Your task to perform on an android device: Open settings on Google Maps Image 0: 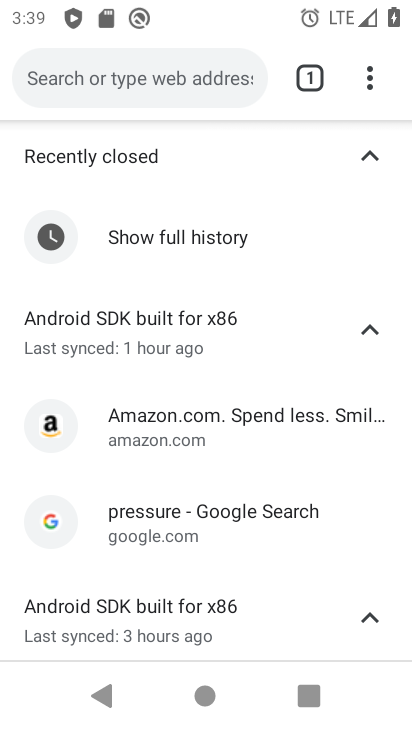
Step 0: press home button
Your task to perform on an android device: Open settings on Google Maps Image 1: 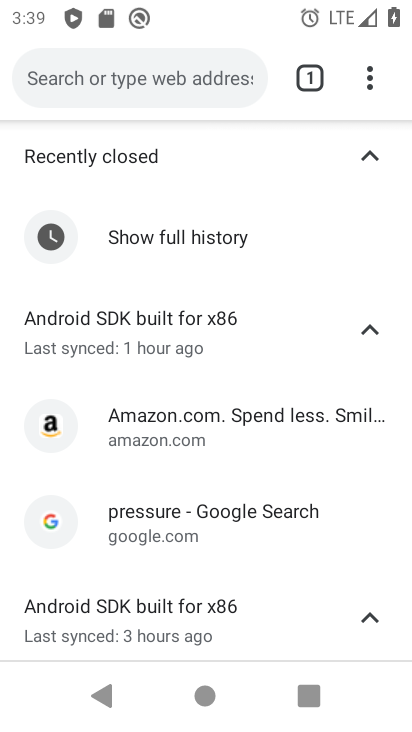
Step 1: press home button
Your task to perform on an android device: Open settings on Google Maps Image 2: 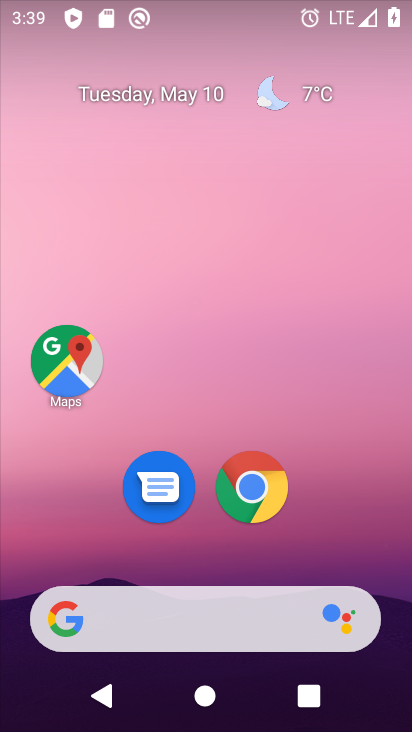
Step 2: click (77, 361)
Your task to perform on an android device: Open settings on Google Maps Image 3: 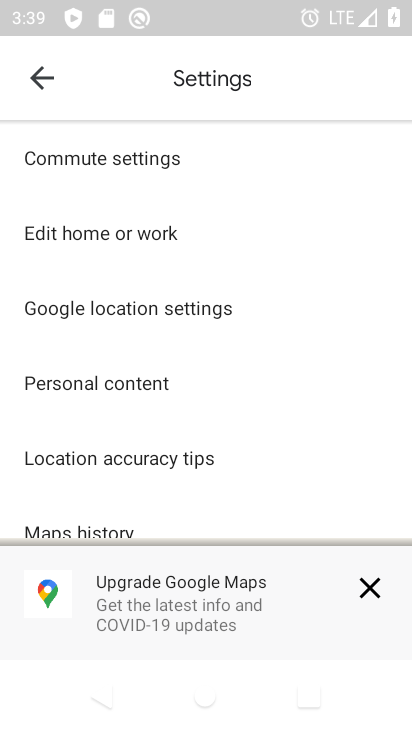
Step 3: drag from (191, 433) to (195, 57)
Your task to perform on an android device: Open settings on Google Maps Image 4: 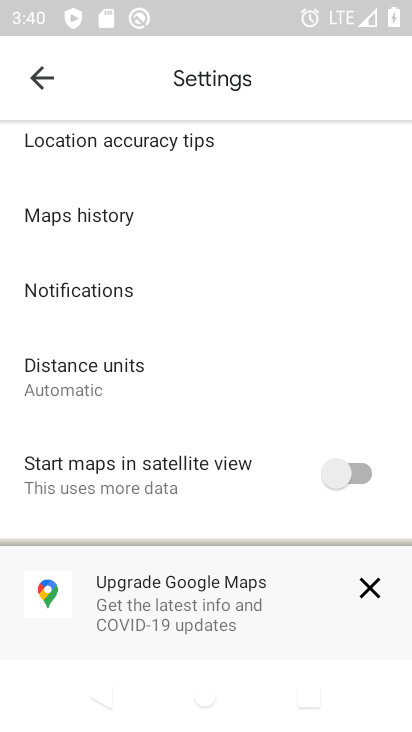
Step 4: click (43, 72)
Your task to perform on an android device: Open settings on Google Maps Image 5: 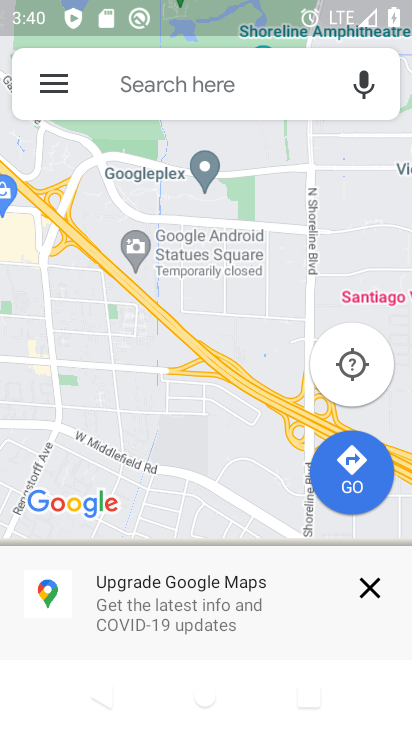
Step 5: click (57, 79)
Your task to perform on an android device: Open settings on Google Maps Image 6: 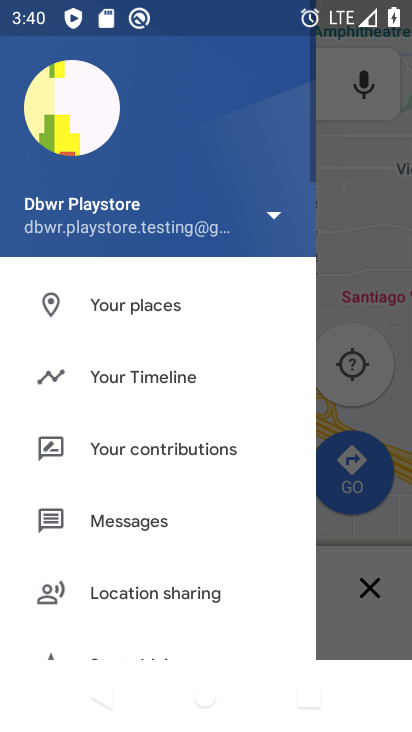
Step 6: drag from (150, 482) to (170, 0)
Your task to perform on an android device: Open settings on Google Maps Image 7: 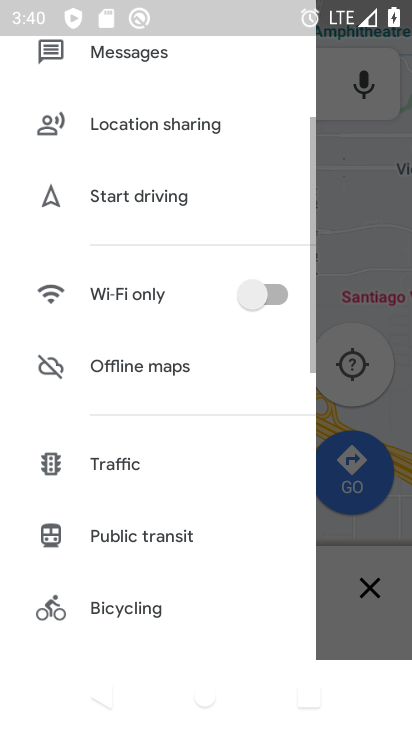
Step 7: drag from (137, 574) to (169, 156)
Your task to perform on an android device: Open settings on Google Maps Image 8: 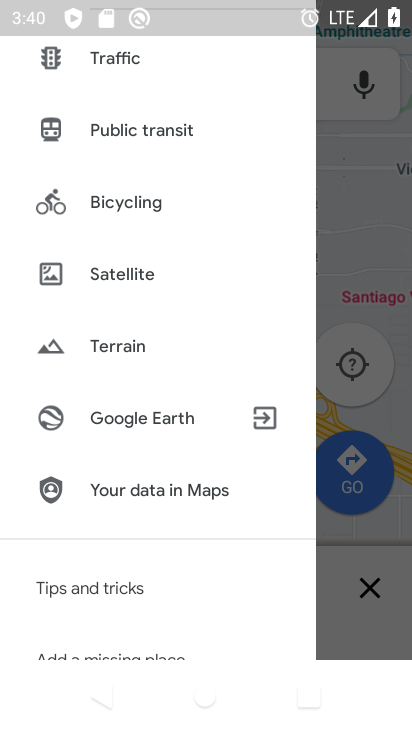
Step 8: drag from (101, 602) to (170, 218)
Your task to perform on an android device: Open settings on Google Maps Image 9: 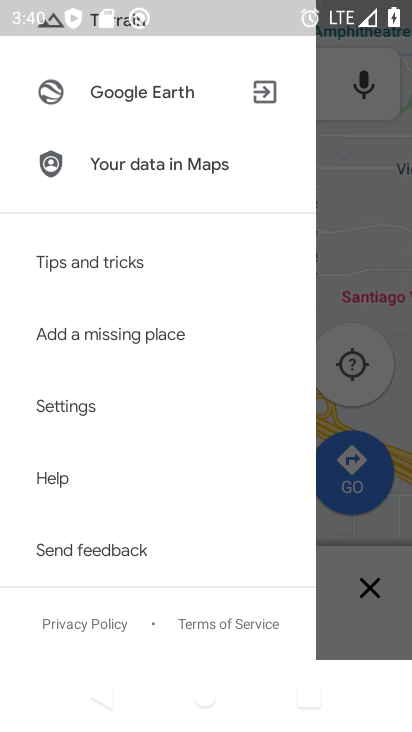
Step 9: click (64, 407)
Your task to perform on an android device: Open settings on Google Maps Image 10: 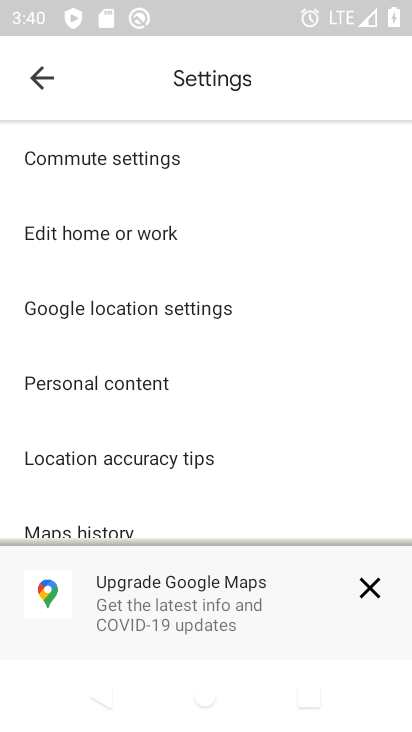
Step 10: task complete